Your task to perform on an android device: move a message to another label in the gmail app Image 0: 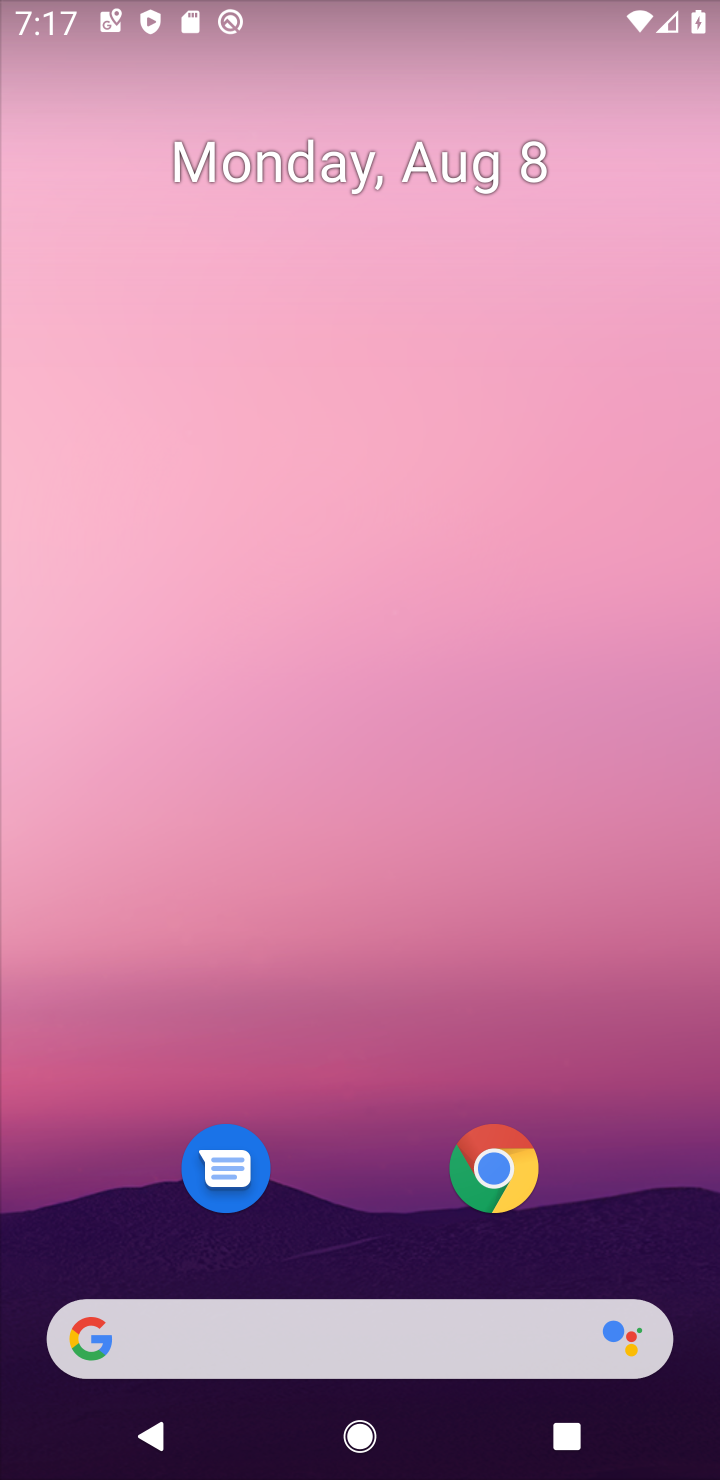
Step 0: drag from (598, 1044) to (348, 49)
Your task to perform on an android device: move a message to another label in the gmail app Image 1: 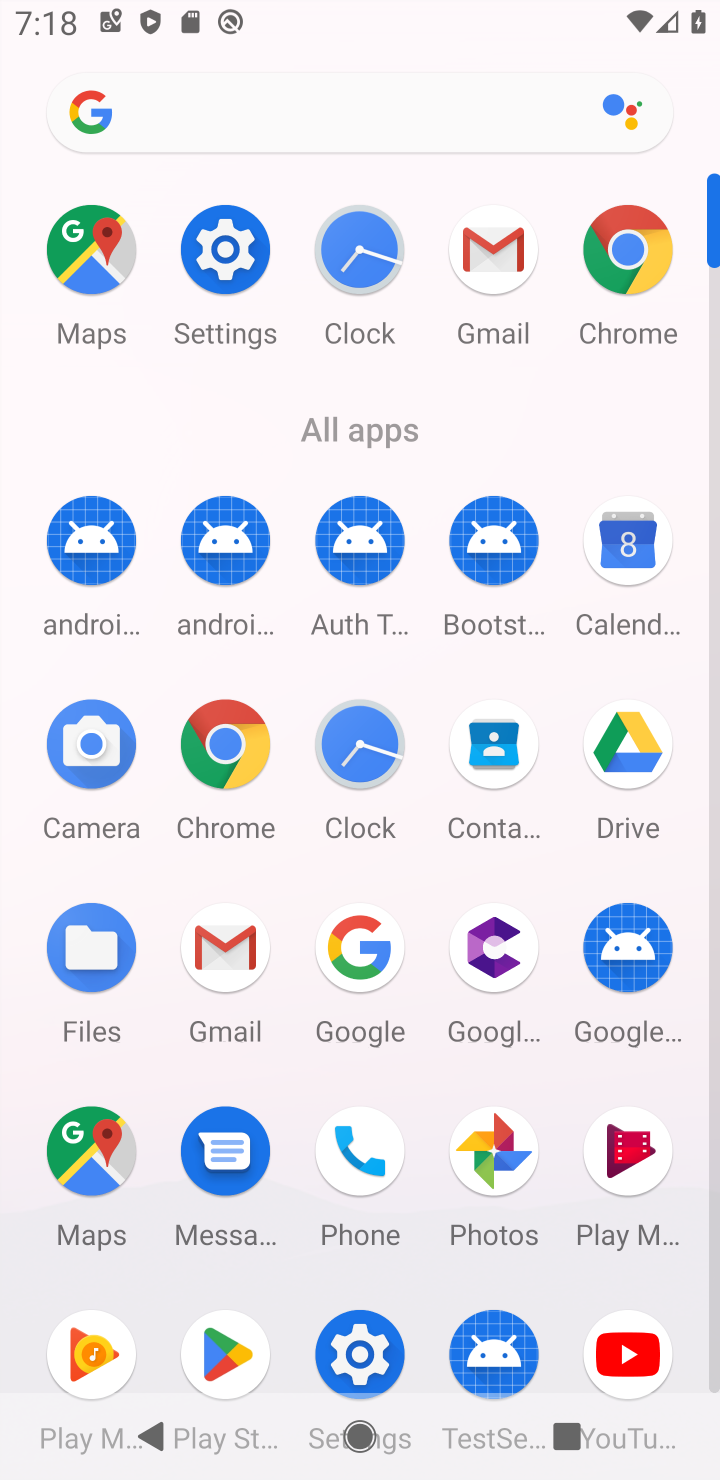
Step 1: click (245, 943)
Your task to perform on an android device: move a message to another label in the gmail app Image 2: 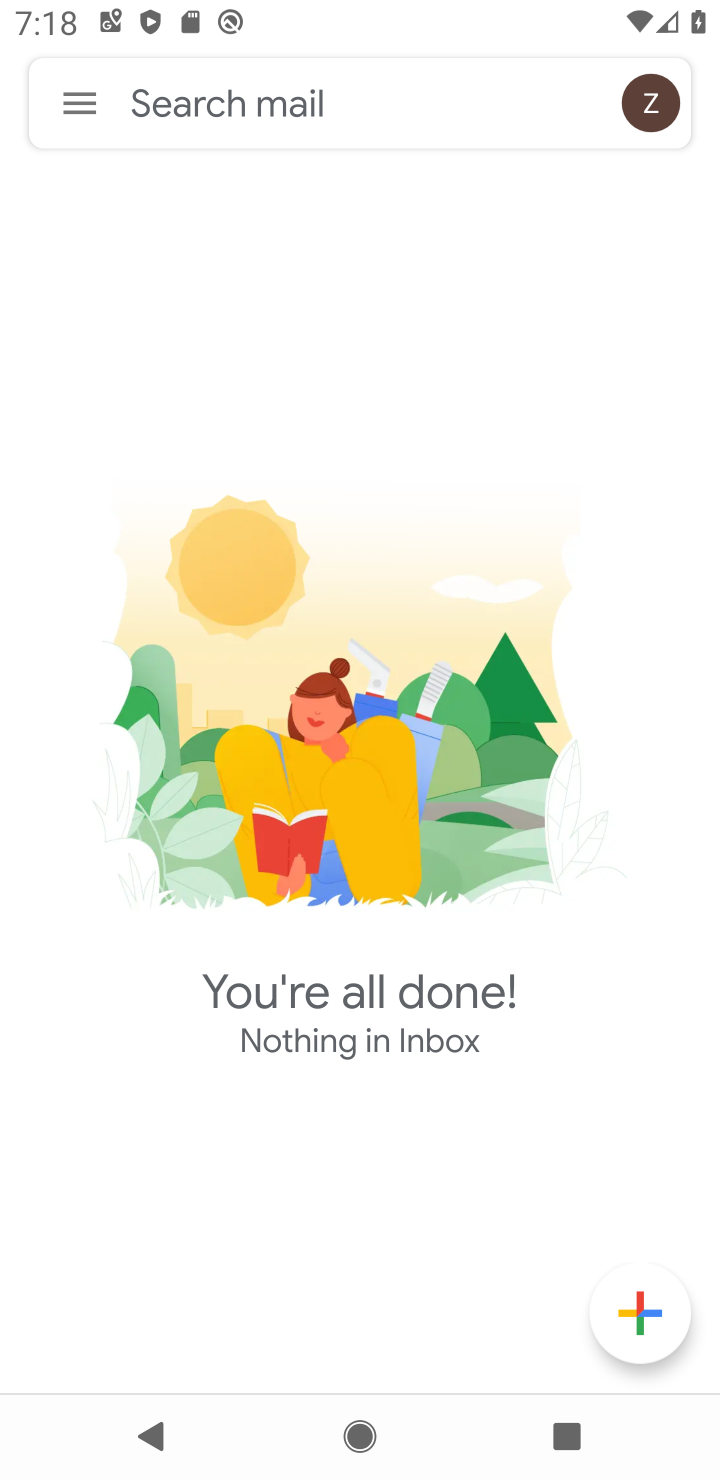
Step 2: task complete